Your task to perform on an android device: toggle notifications settings in the gmail app Image 0: 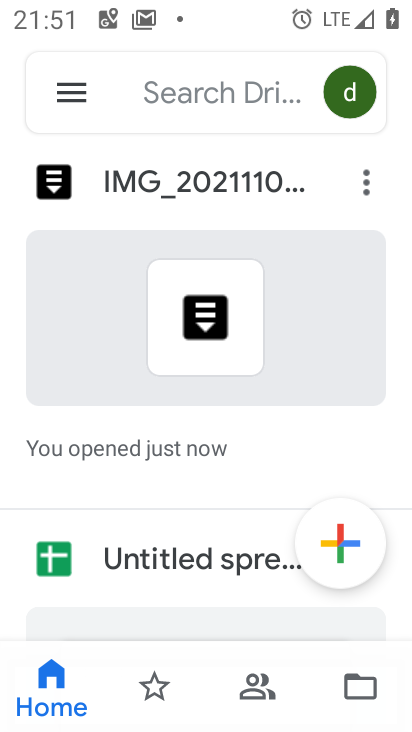
Step 0: press home button
Your task to perform on an android device: toggle notifications settings in the gmail app Image 1: 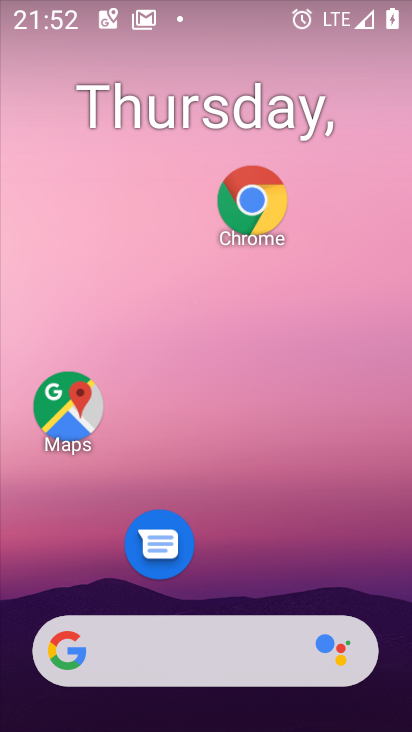
Step 1: drag from (298, 606) to (298, 114)
Your task to perform on an android device: toggle notifications settings in the gmail app Image 2: 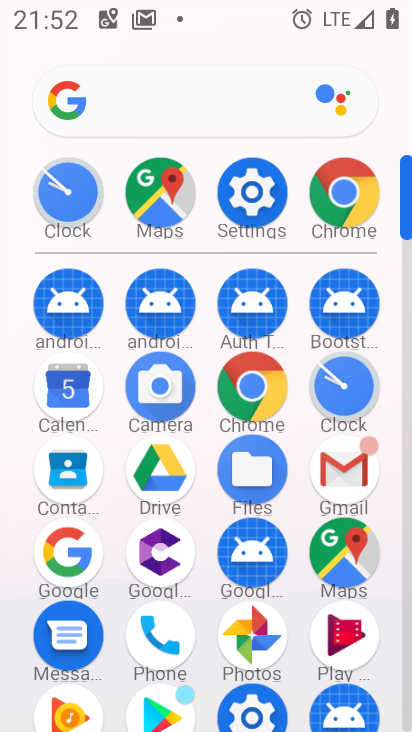
Step 2: click (256, 215)
Your task to perform on an android device: toggle notifications settings in the gmail app Image 3: 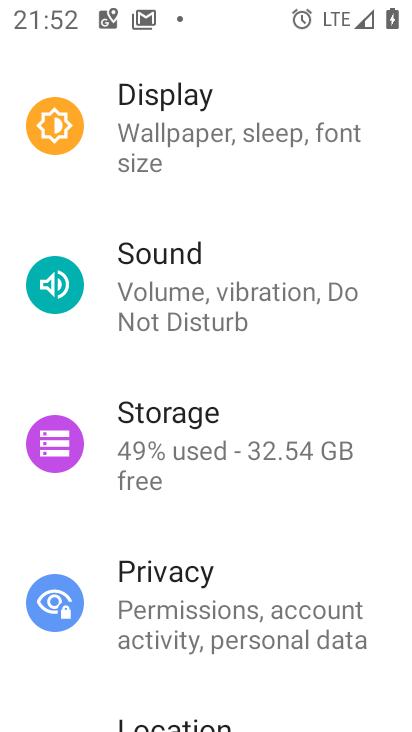
Step 3: drag from (74, 529) to (126, 147)
Your task to perform on an android device: toggle notifications settings in the gmail app Image 4: 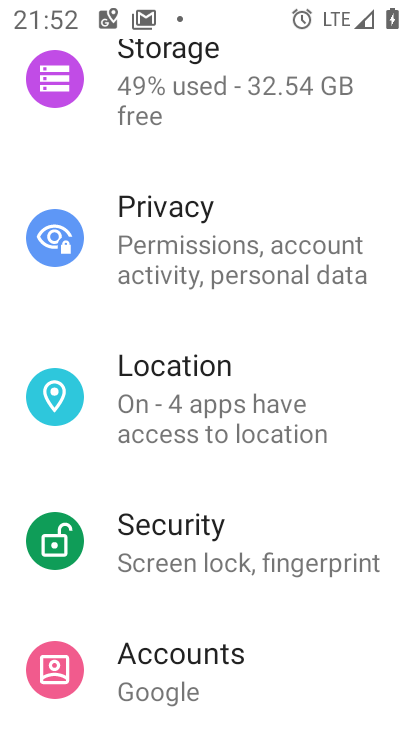
Step 4: drag from (129, 576) to (194, 169)
Your task to perform on an android device: toggle notifications settings in the gmail app Image 5: 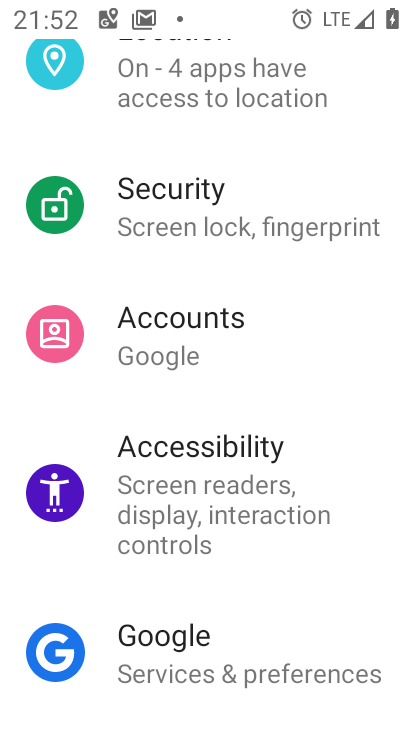
Step 5: drag from (200, 418) to (199, 712)
Your task to perform on an android device: toggle notifications settings in the gmail app Image 6: 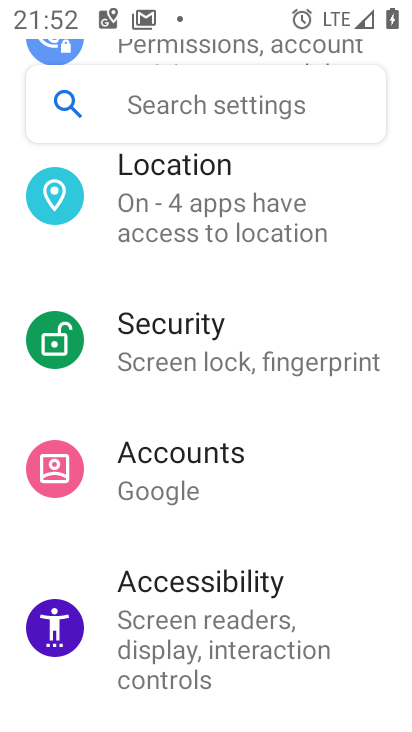
Step 6: drag from (215, 242) to (226, 661)
Your task to perform on an android device: toggle notifications settings in the gmail app Image 7: 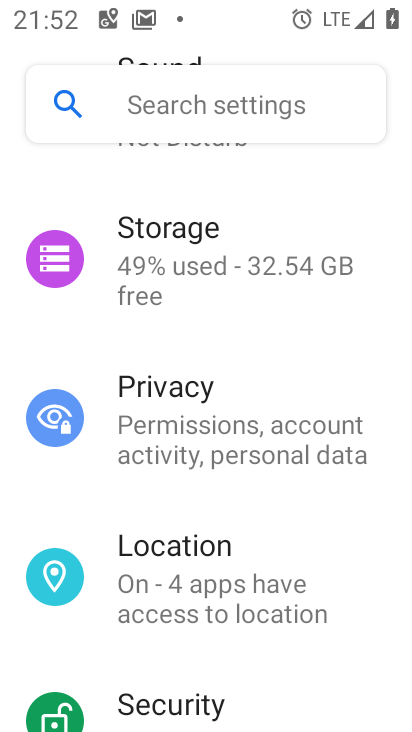
Step 7: drag from (209, 270) to (239, 654)
Your task to perform on an android device: toggle notifications settings in the gmail app Image 8: 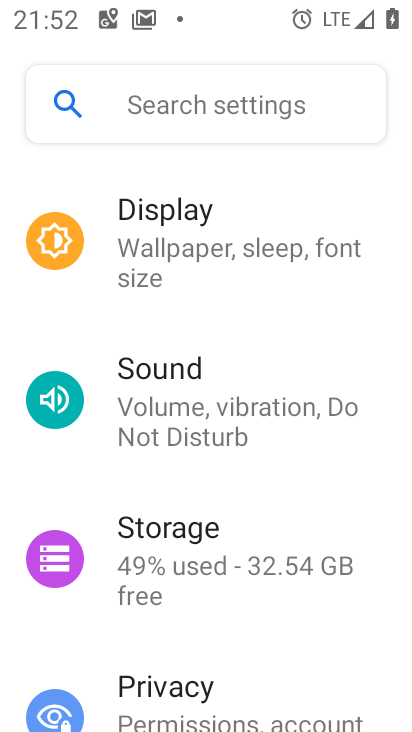
Step 8: drag from (232, 244) to (238, 641)
Your task to perform on an android device: toggle notifications settings in the gmail app Image 9: 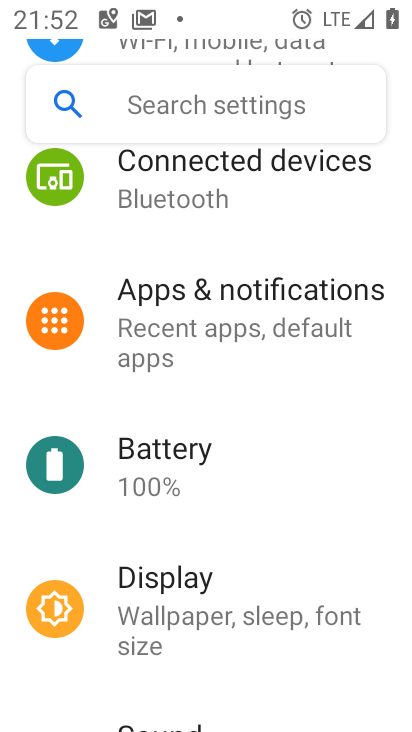
Step 9: click (218, 332)
Your task to perform on an android device: toggle notifications settings in the gmail app Image 10: 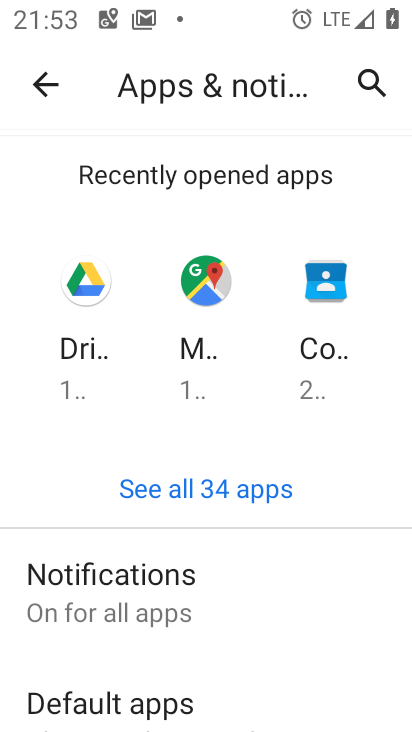
Step 10: click (135, 645)
Your task to perform on an android device: toggle notifications settings in the gmail app Image 11: 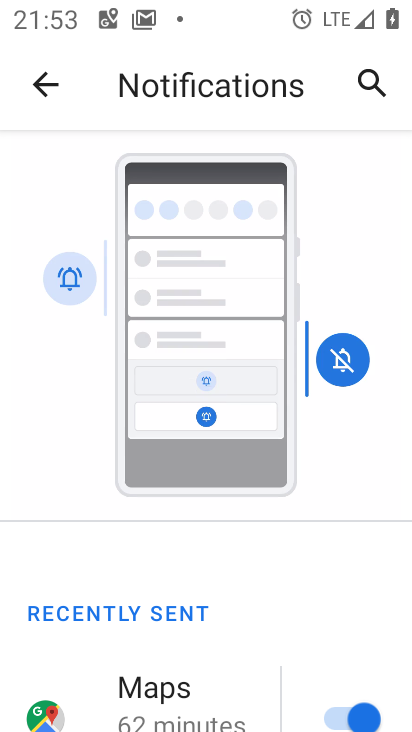
Step 11: drag from (86, 634) to (165, 174)
Your task to perform on an android device: toggle notifications settings in the gmail app Image 12: 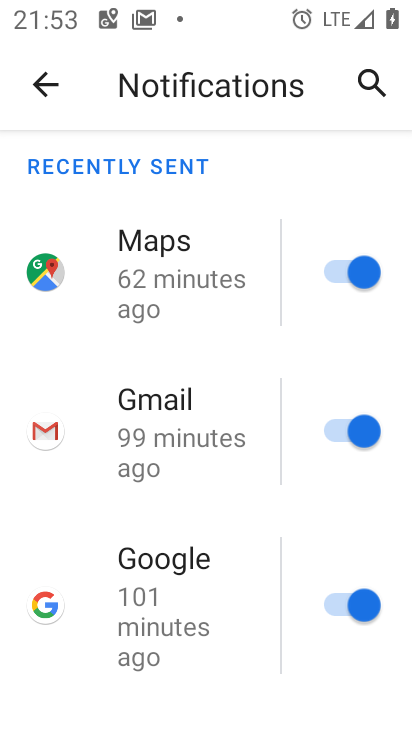
Step 12: click (173, 474)
Your task to perform on an android device: toggle notifications settings in the gmail app Image 13: 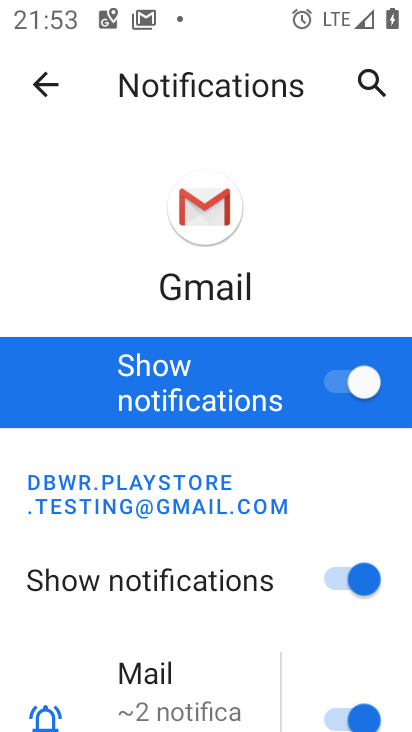
Step 13: click (346, 388)
Your task to perform on an android device: toggle notifications settings in the gmail app Image 14: 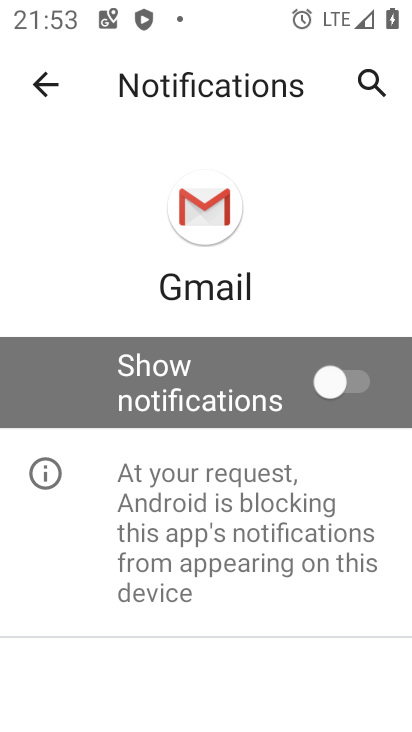
Step 14: click (346, 388)
Your task to perform on an android device: toggle notifications settings in the gmail app Image 15: 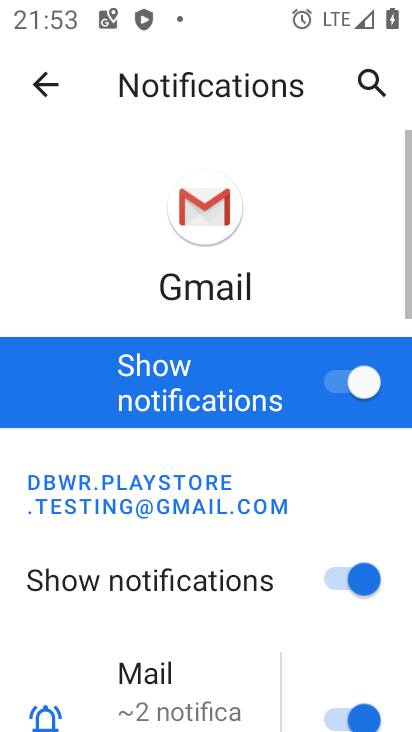
Step 15: task complete